Your task to perform on an android device: Open calendar and show me the second week of next month Image 0: 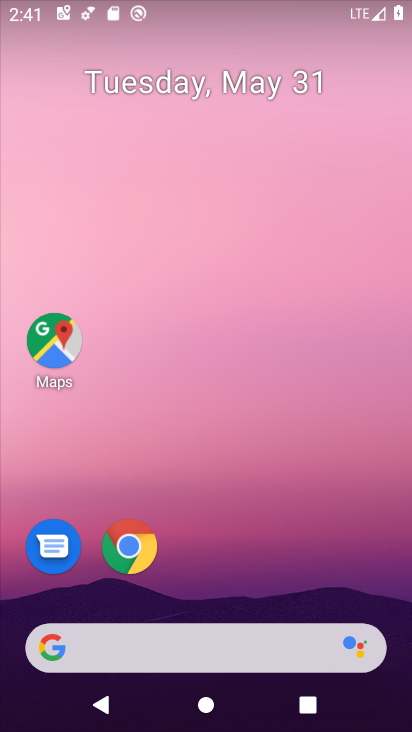
Step 0: drag from (303, 519) to (207, 24)
Your task to perform on an android device: Open calendar and show me the second week of next month Image 1: 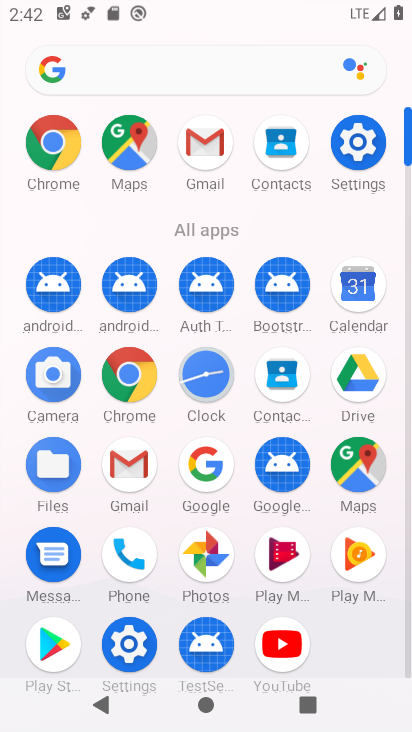
Step 1: click (366, 299)
Your task to perform on an android device: Open calendar and show me the second week of next month Image 2: 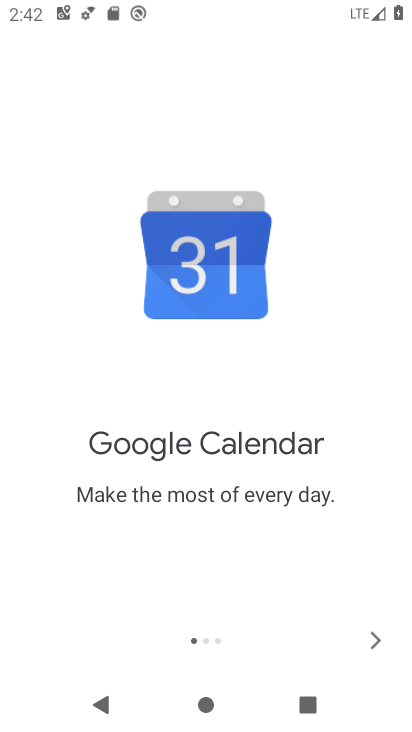
Step 2: click (378, 638)
Your task to perform on an android device: Open calendar and show me the second week of next month Image 3: 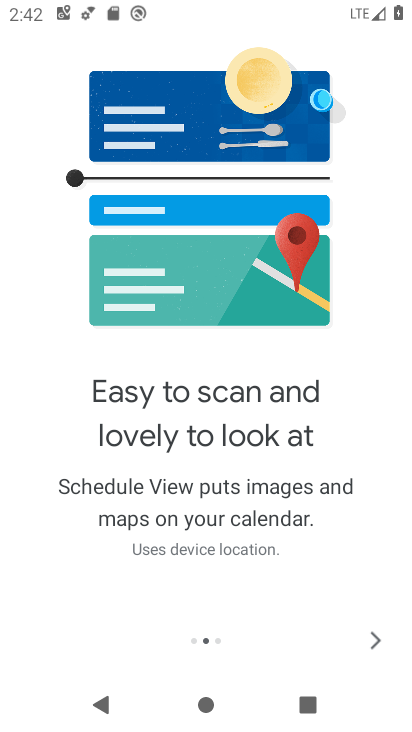
Step 3: click (371, 639)
Your task to perform on an android device: Open calendar and show me the second week of next month Image 4: 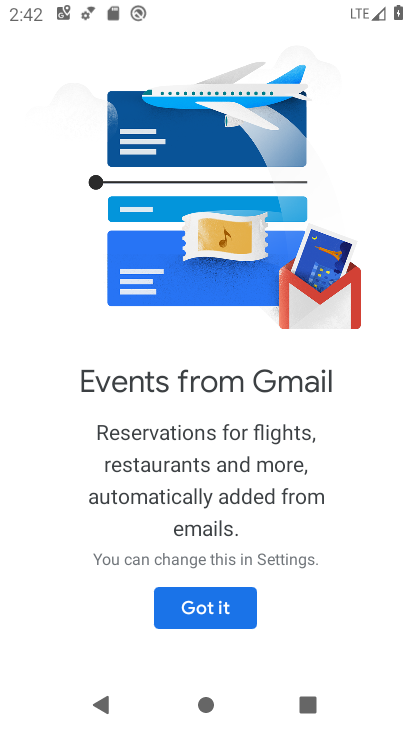
Step 4: click (258, 632)
Your task to perform on an android device: Open calendar and show me the second week of next month Image 5: 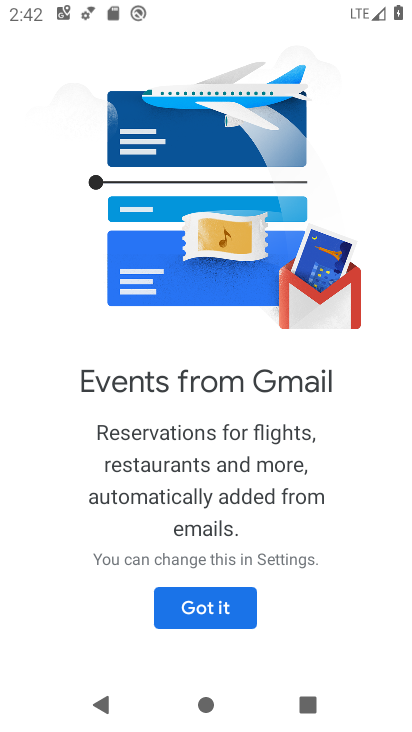
Step 5: click (249, 619)
Your task to perform on an android device: Open calendar and show me the second week of next month Image 6: 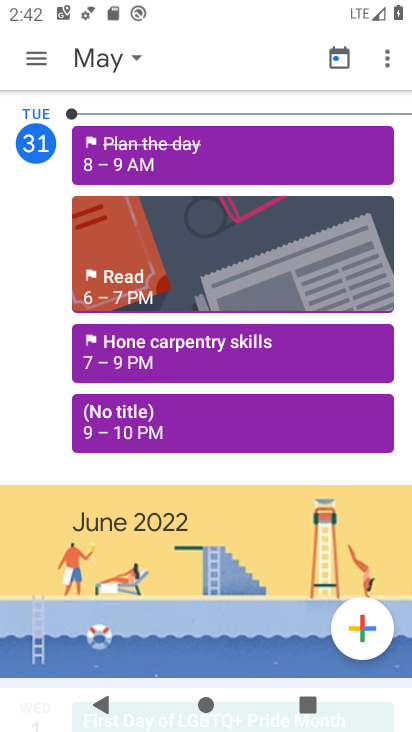
Step 6: click (38, 60)
Your task to perform on an android device: Open calendar and show me the second week of next month Image 7: 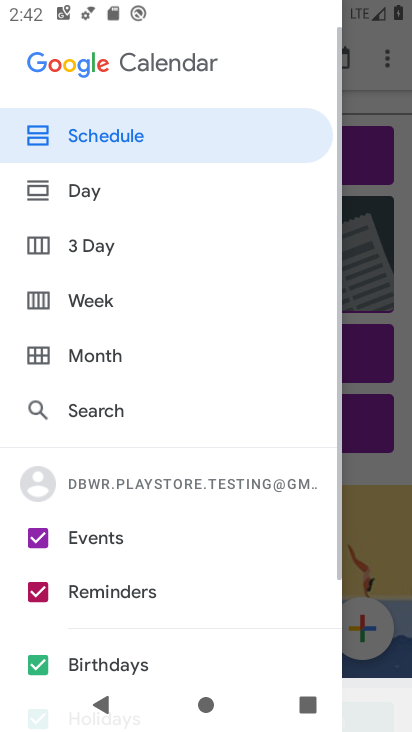
Step 7: click (98, 302)
Your task to perform on an android device: Open calendar and show me the second week of next month Image 8: 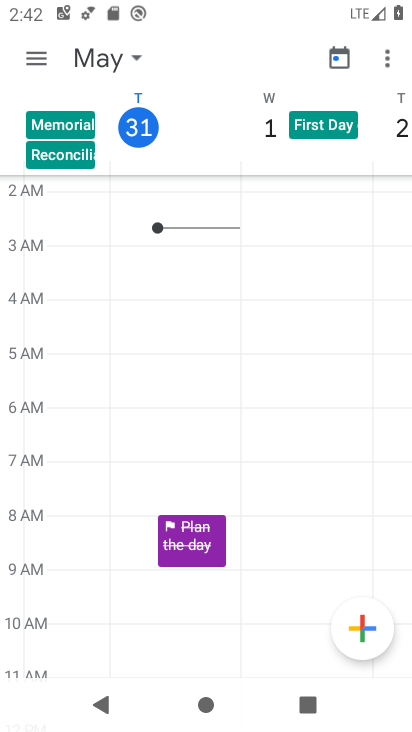
Step 8: click (117, 58)
Your task to perform on an android device: Open calendar and show me the second week of next month Image 9: 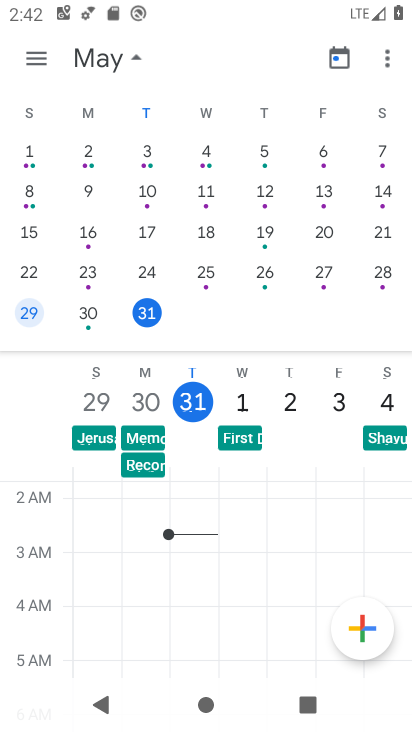
Step 9: drag from (355, 243) to (0, 221)
Your task to perform on an android device: Open calendar and show me the second week of next month Image 10: 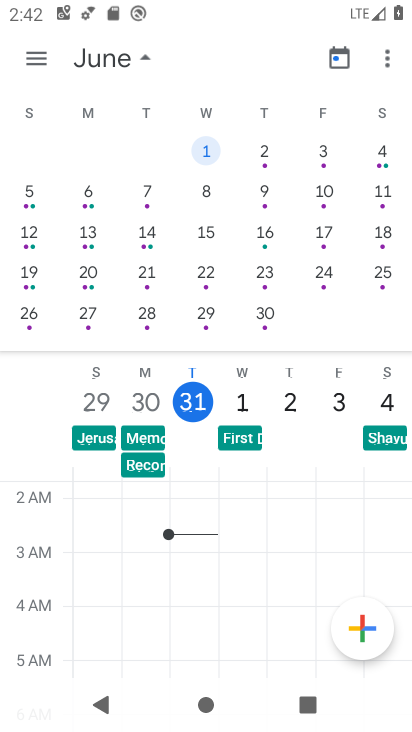
Step 10: click (31, 191)
Your task to perform on an android device: Open calendar and show me the second week of next month Image 11: 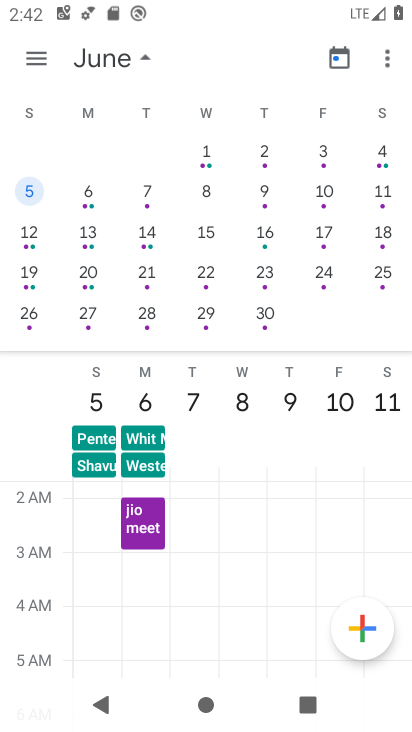
Step 11: task complete